Your task to perform on an android device: Go to Google Image 0: 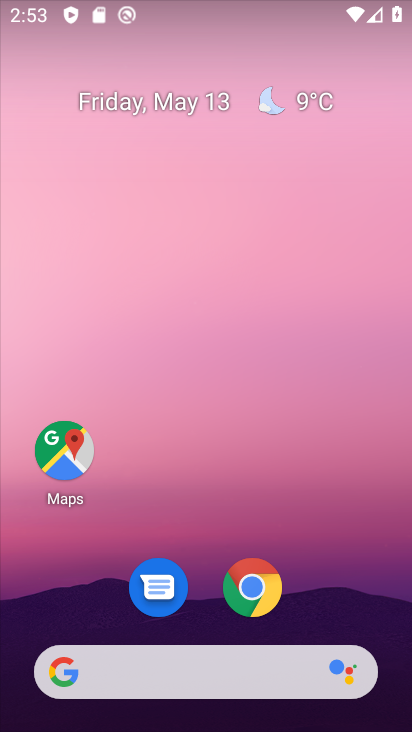
Step 0: drag from (293, 265) to (291, 206)
Your task to perform on an android device: Go to Google Image 1: 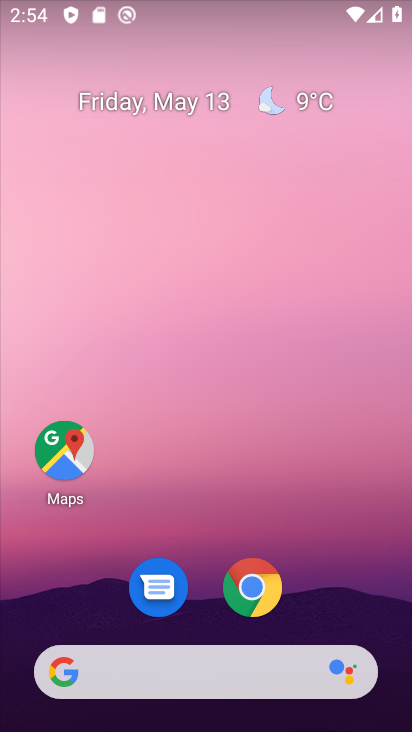
Step 1: drag from (300, 468) to (317, 47)
Your task to perform on an android device: Go to Google Image 2: 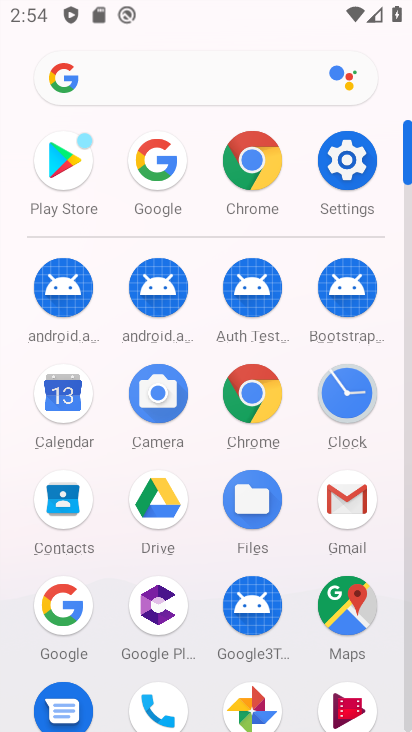
Step 2: click (174, 157)
Your task to perform on an android device: Go to Google Image 3: 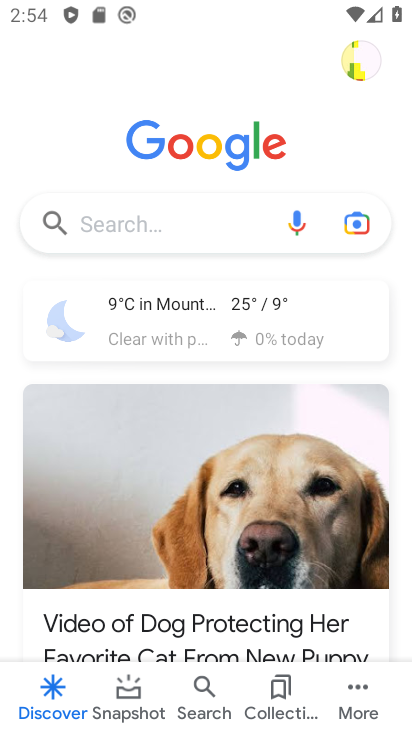
Step 3: task complete